Your task to perform on an android device: move an email to a new category in the gmail app Image 0: 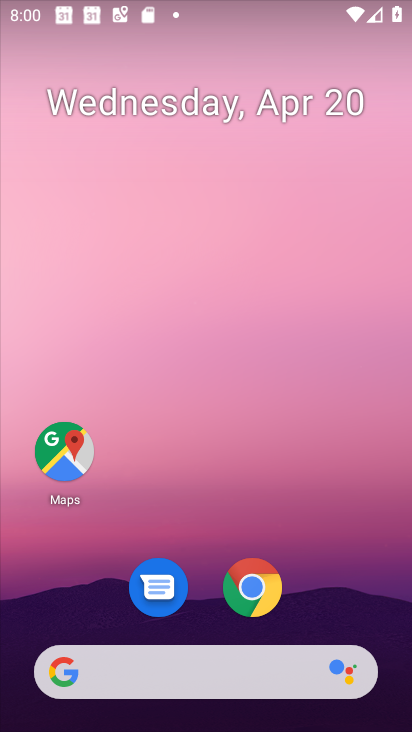
Step 0: drag from (342, 538) to (236, 175)
Your task to perform on an android device: move an email to a new category in the gmail app Image 1: 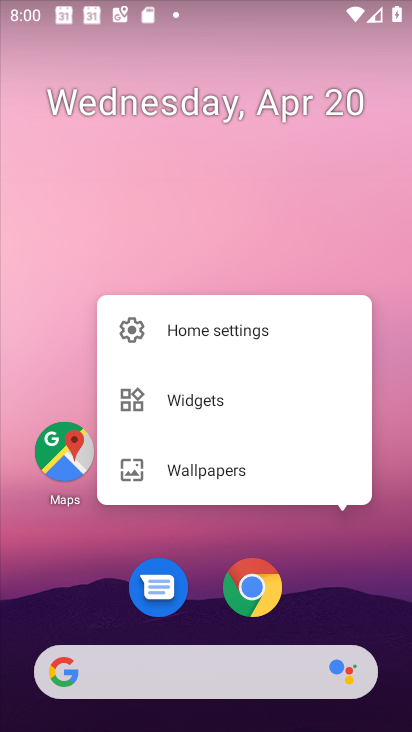
Step 1: click (309, 573)
Your task to perform on an android device: move an email to a new category in the gmail app Image 2: 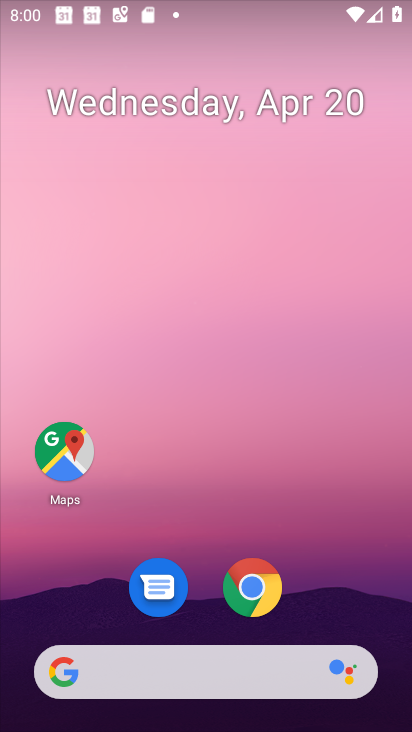
Step 2: drag from (309, 573) to (263, 58)
Your task to perform on an android device: move an email to a new category in the gmail app Image 3: 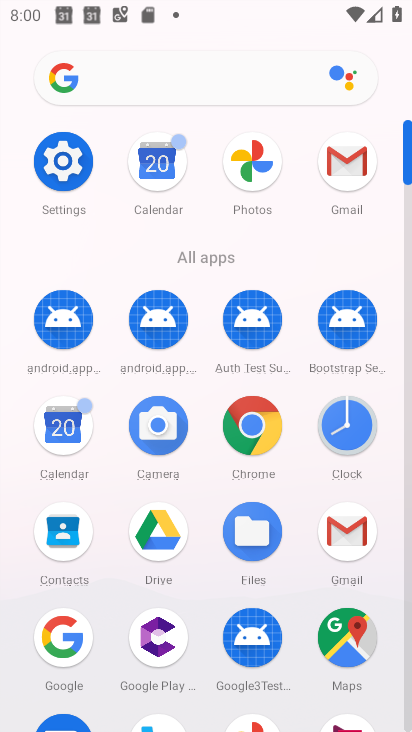
Step 3: click (344, 186)
Your task to perform on an android device: move an email to a new category in the gmail app Image 4: 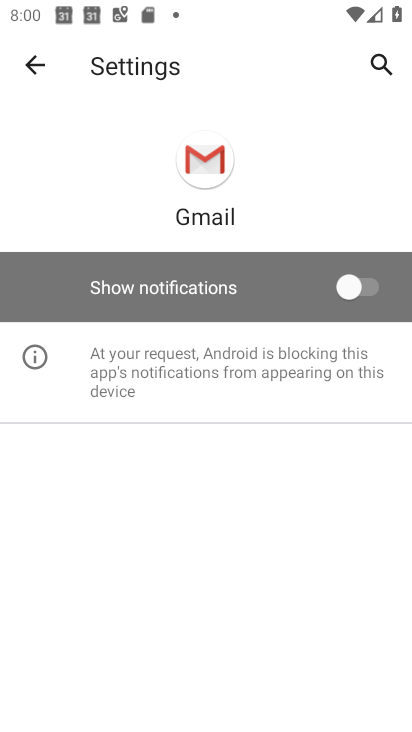
Step 4: click (37, 85)
Your task to perform on an android device: move an email to a new category in the gmail app Image 5: 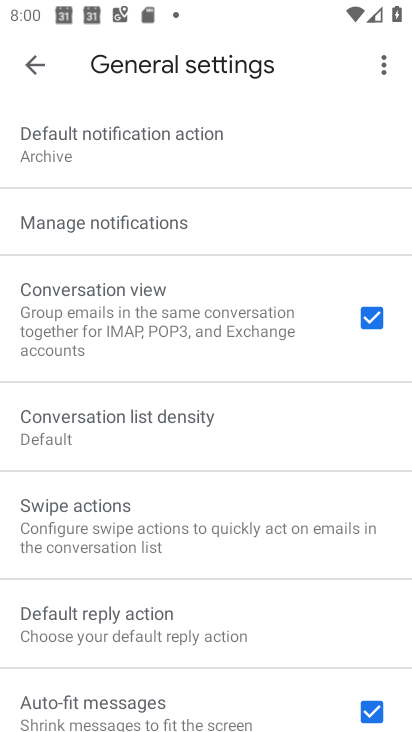
Step 5: click (47, 78)
Your task to perform on an android device: move an email to a new category in the gmail app Image 6: 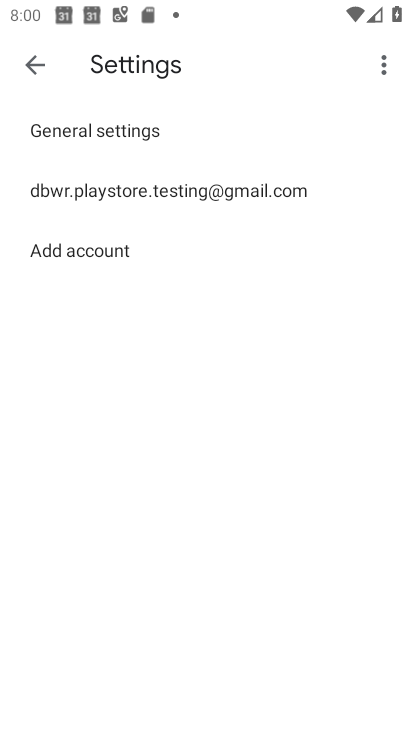
Step 6: click (32, 68)
Your task to perform on an android device: move an email to a new category in the gmail app Image 7: 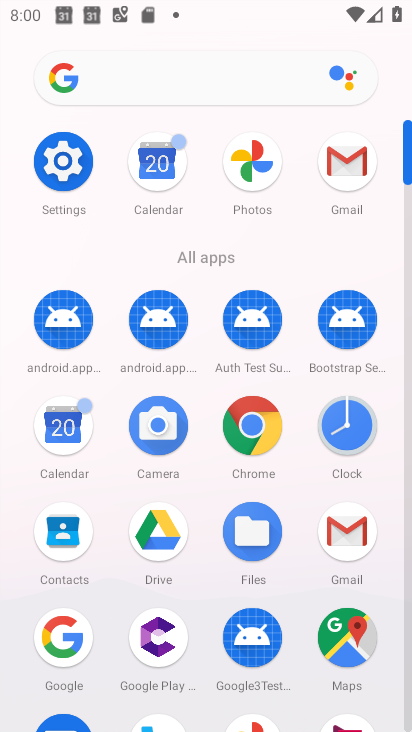
Step 7: click (360, 536)
Your task to perform on an android device: move an email to a new category in the gmail app Image 8: 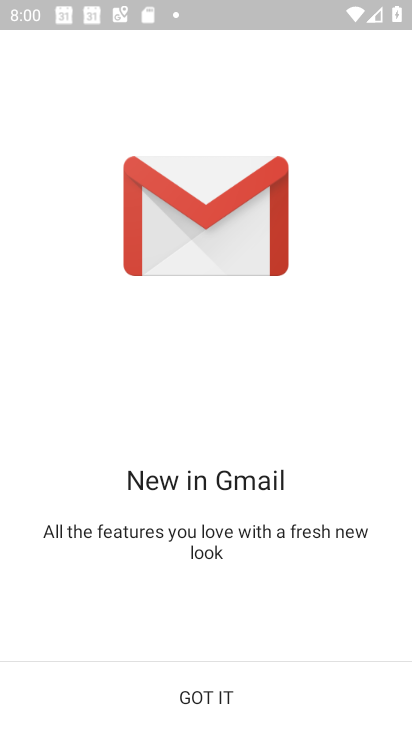
Step 8: click (201, 712)
Your task to perform on an android device: move an email to a new category in the gmail app Image 9: 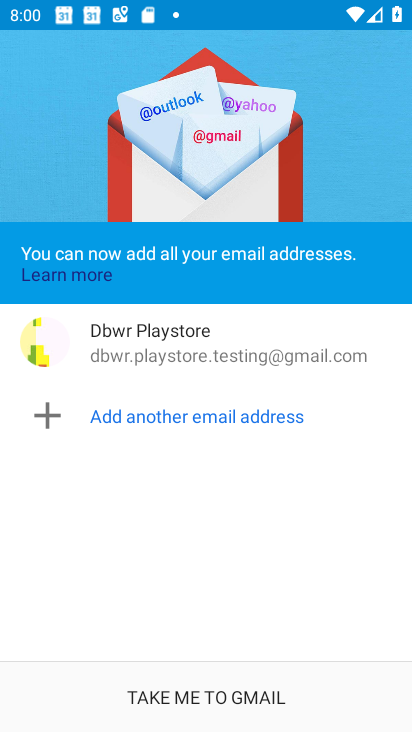
Step 9: click (193, 712)
Your task to perform on an android device: move an email to a new category in the gmail app Image 10: 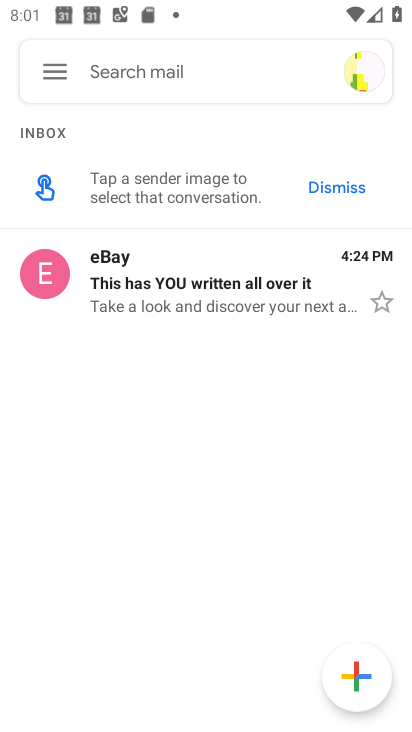
Step 10: click (188, 284)
Your task to perform on an android device: move an email to a new category in the gmail app Image 11: 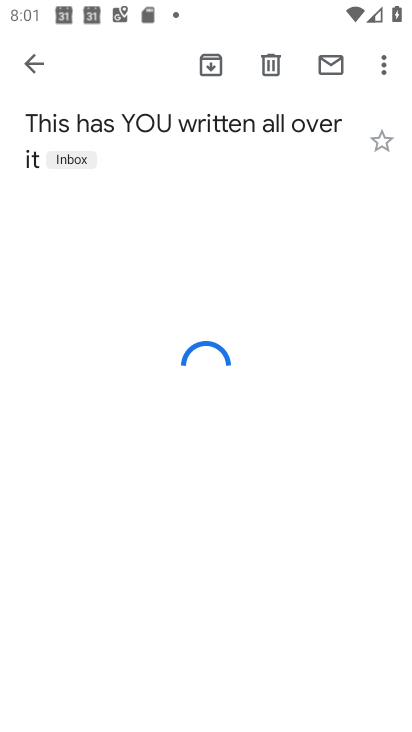
Step 11: click (382, 73)
Your task to perform on an android device: move an email to a new category in the gmail app Image 12: 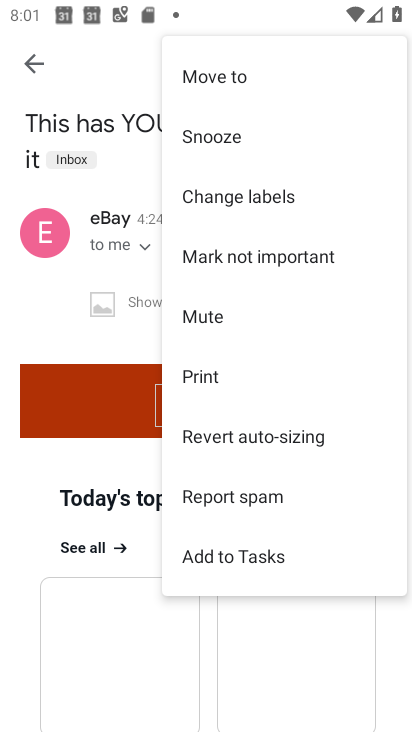
Step 12: click (273, 214)
Your task to perform on an android device: move an email to a new category in the gmail app Image 13: 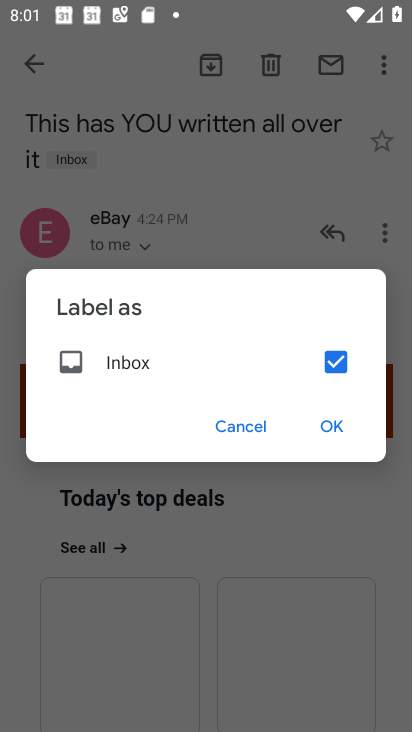
Step 13: click (345, 424)
Your task to perform on an android device: move an email to a new category in the gmail app Image 14: 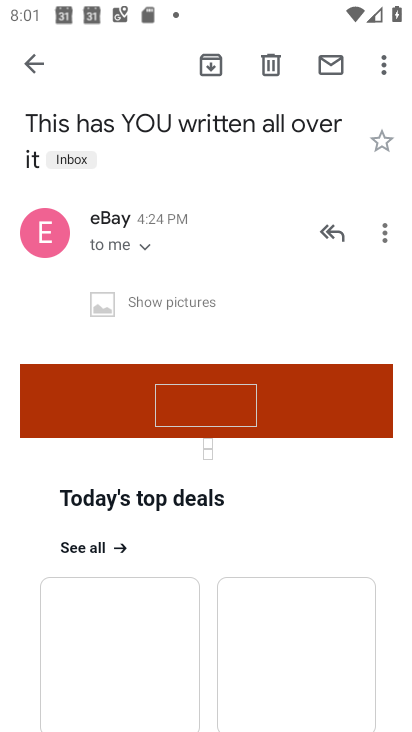
Step 14: task complete